Your task to perform on an android device: Open sound settings Image 0: 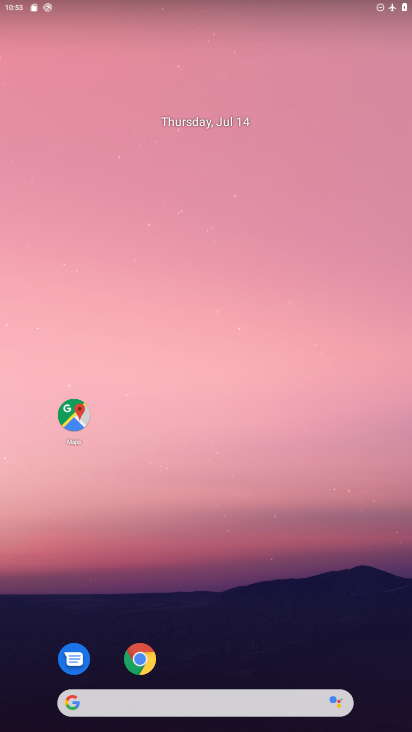
Step 0: drag from (281, 615) to (255, 101)
Your task to perform on an android device: Open sound settings Image 1: 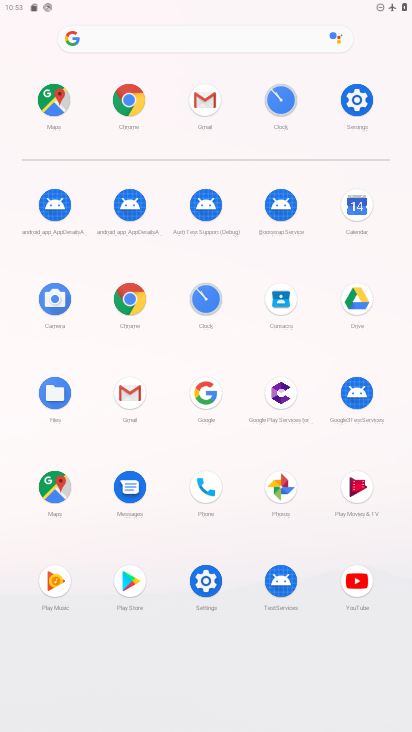
Step 1: click (353, 99)
Your task to perform on an android device: Open sound settings Image 2: 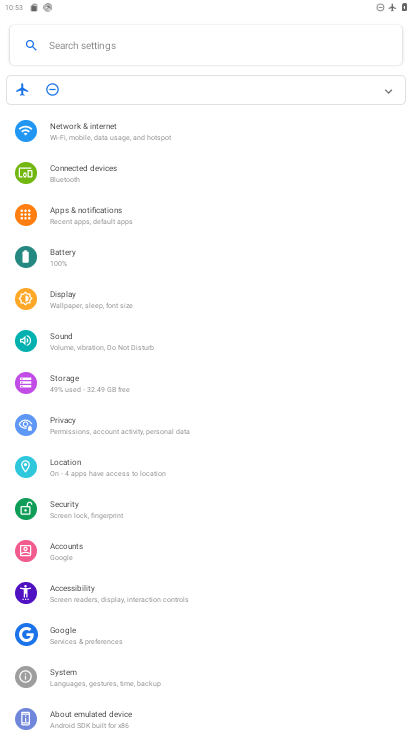
Step 2: click (84, 339)
Your task to perform on an android device: Open sound settings Image 3: 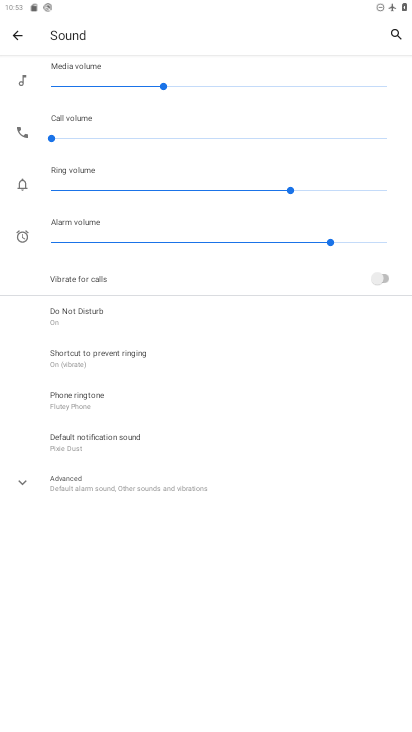
Step 3: task complete